Your task to perform on an android device: visit the assistant section in the google photos Image 0: 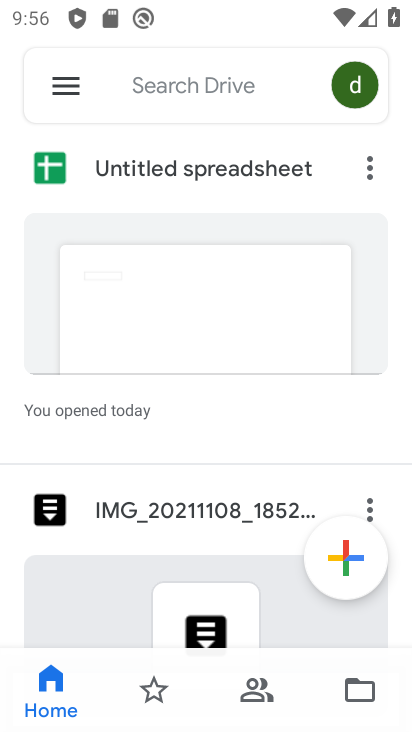
Step 0: press home button
Your task to perform on an android device: visit the assistant section in the google photos Image 1: 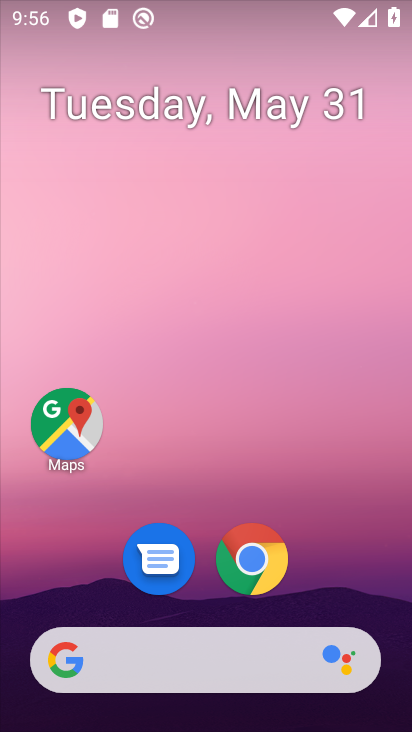
Step 1: drag from (61, 627) to (189, 112)
Your task to perform on an android device: visit the assistant section in the google photos Image 2: 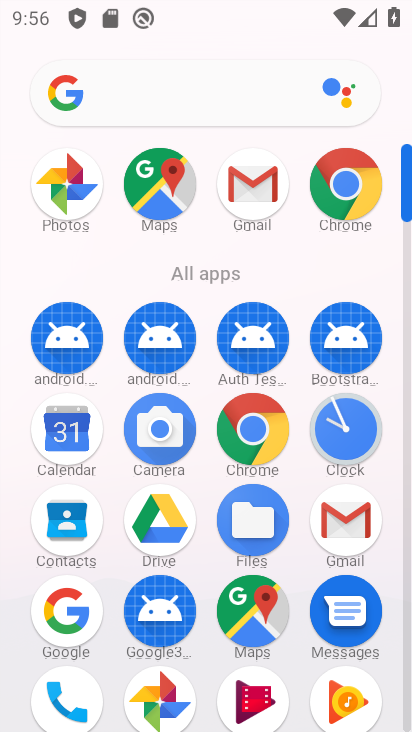
Step 2: drag from (196, 664) to (236, 389)
Your task to perform on an android device: visit the assistant section in the google photos Image 3: 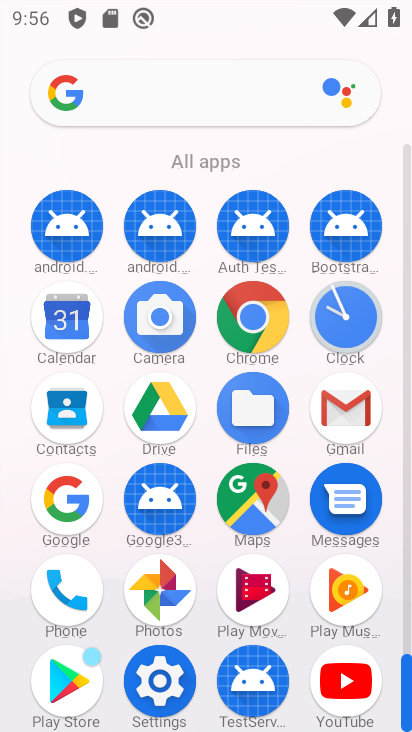
Step 3: click (153, 594)
Your task to perform on an android device: visit the assistant section in the google photos Image 4: 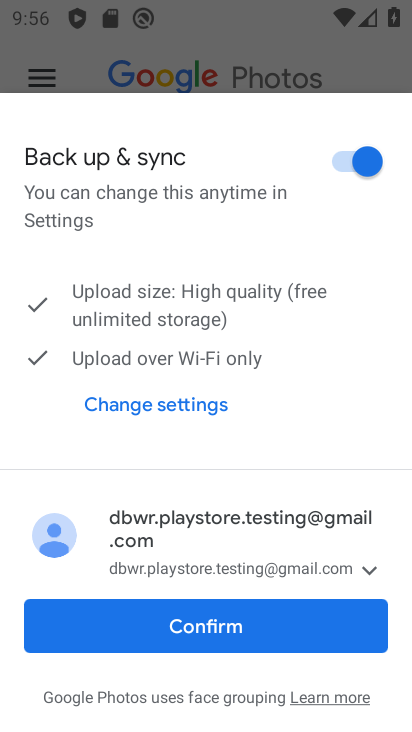
Step 4: click (232, 621)
Your task to perform on an android device: visit the assistant section in the google photos Image 5: 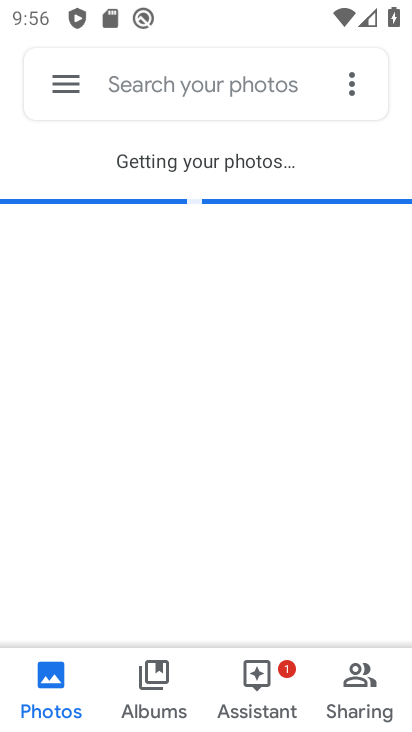
Step 5: click (255, 678)
Your task to perform on an android device: visit the assistant section in the google photos Image 6: 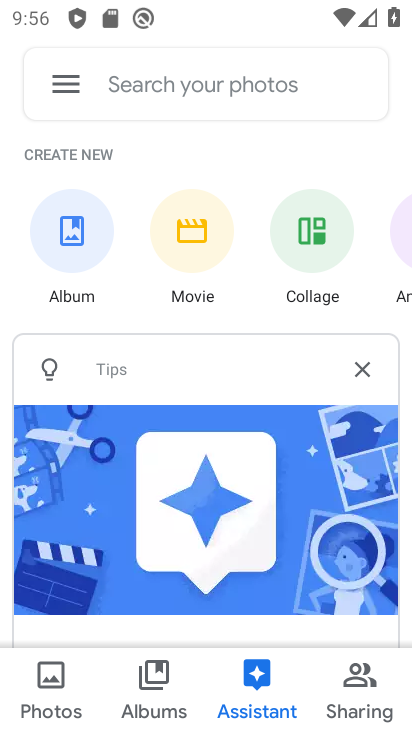
Step 6: task complete